Your task to perform on an android device: Open Youtube and go to the subscriptions tab Image 0: 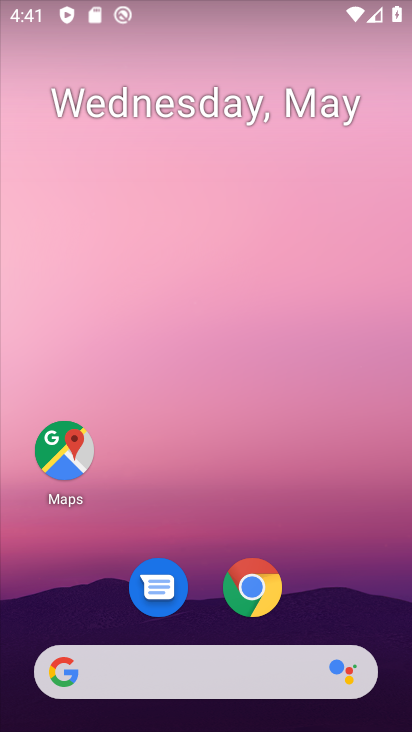
Step 0: drag from (270, 693) to (198, 53)
Your task to perform on an android device: Open Youtube and go to the subscriptions tab Image 1: 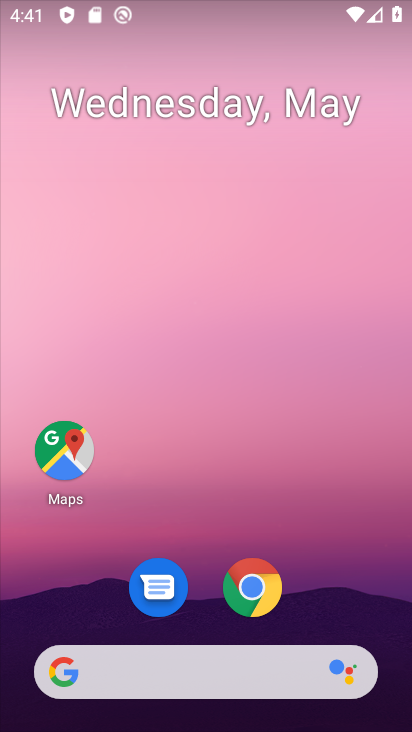
Step 1: drag from (255, 518) to (158, 195)
Your task to perform on an android device: Open Youtube and go to the subscriptions tab Image 2: 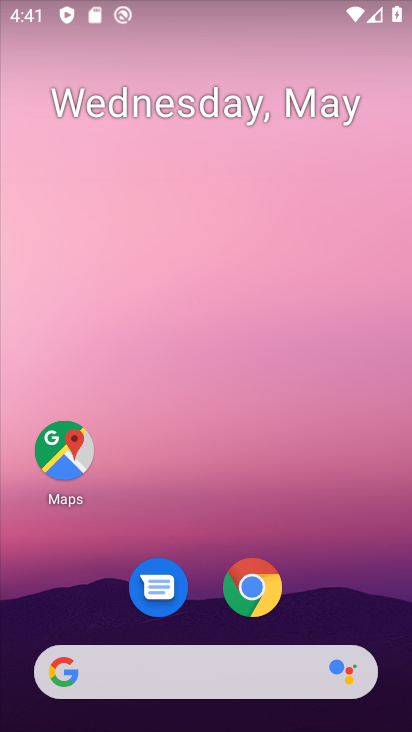
Step 2: drag from (303, 616) to (239, 267)
Your task to perform on an android device: Open Youtube and go to the subscriptions tab Image 3: 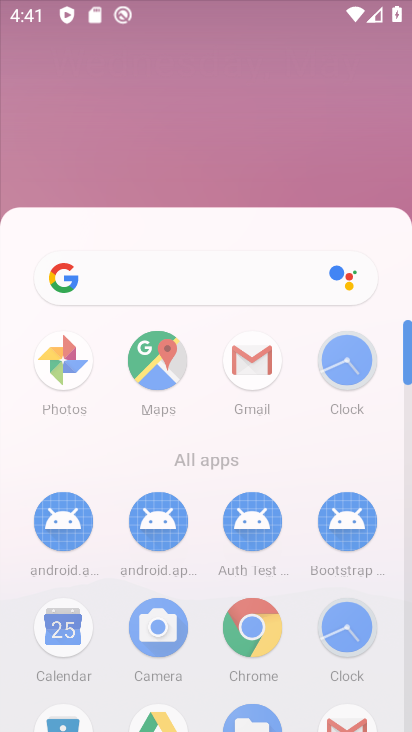
Step 3: drag from (262, 608) to (179, 191)
Your task to perform on an android device: Open Youtube and go to the subscriptions tab Image 4: 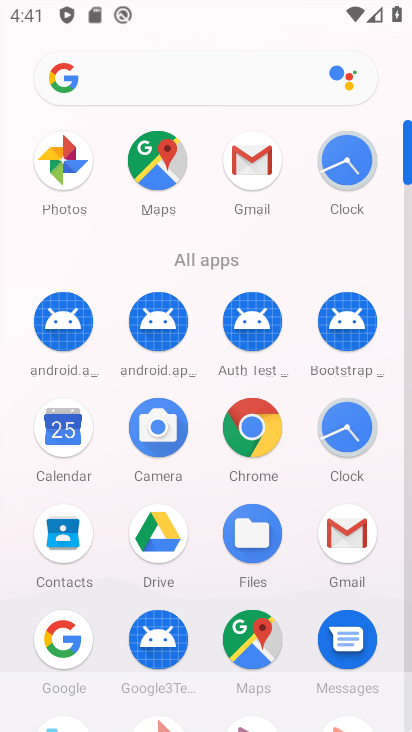
Step 4: drag from (262, 482) to (193, 63)
Your task to perform on an android device: Open Youtube and go to the subscriptions tab Image 5: 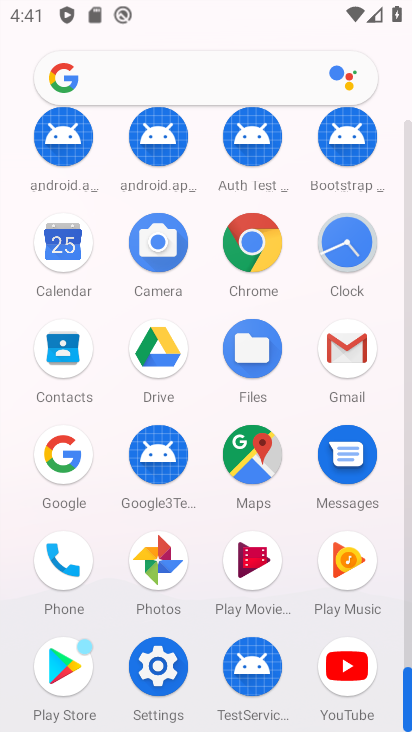
Step 5: click (356, 676)
Your task to perform on an android device: Open Youtube and go to the subscriptions tab Image 6: 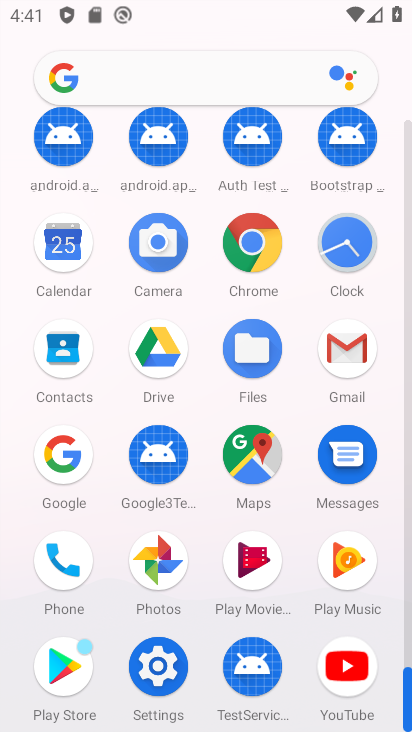
Step 6: click (356, 676)
Your task to perform on an android device: Open Youtube and go to the subscriptions tab Image 7: 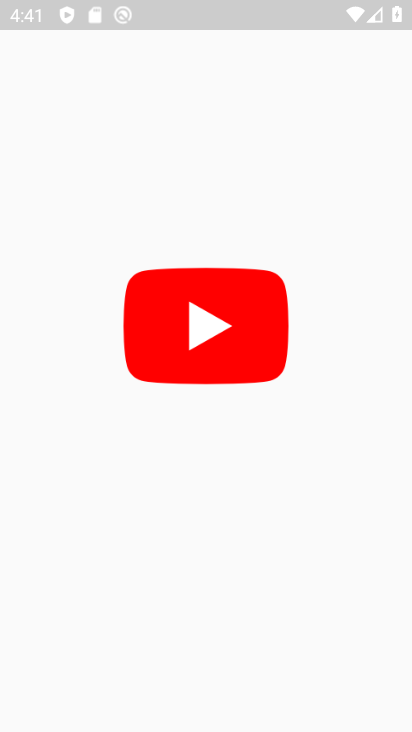
Step 7: click (335, 652)
Your task to perform on an android device: Open Youtube and go to the subscriptions tab Image 8: 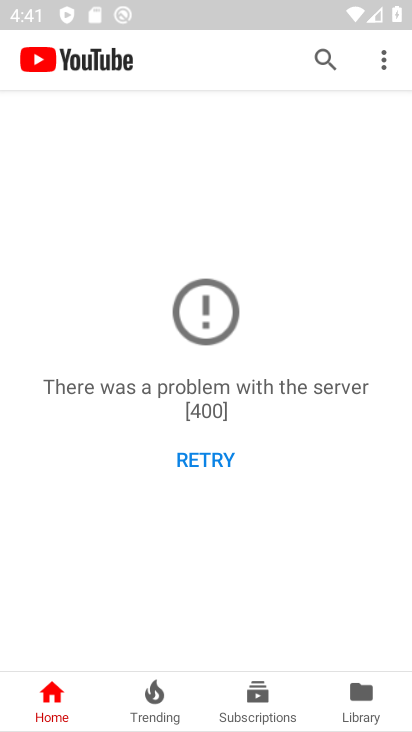
Step 8: task complete